Your task to perform on an android device: open sync settings in chrome Image 0: 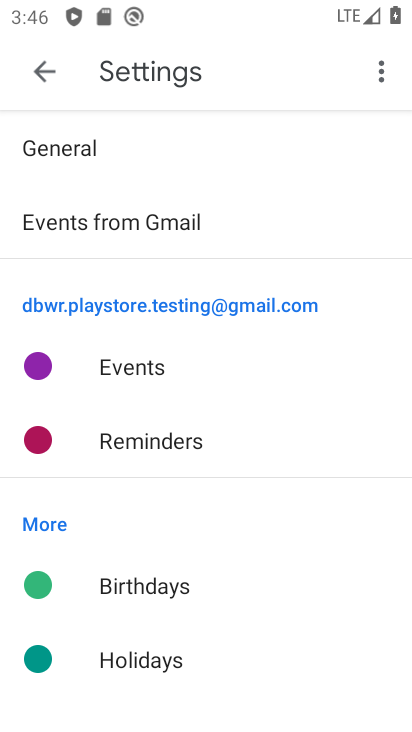
Step 0: press home button
Your task to perform on an android device: open sync settings in chrome Image 1: 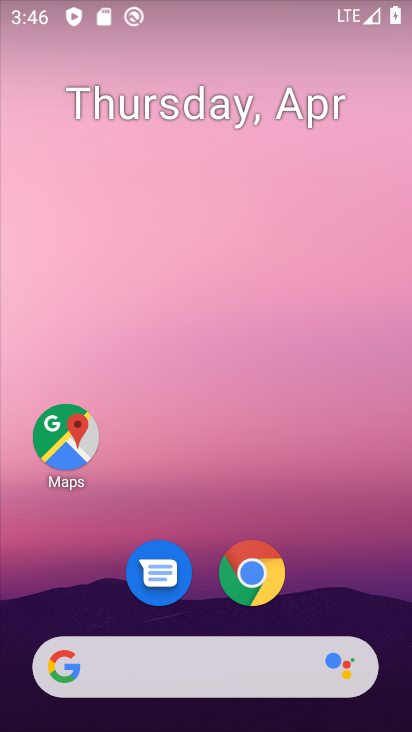
Step 1: drag from (337, 606) to (343, 113)
Your task to perform on an android device: open sync settings in chrome Image 2: 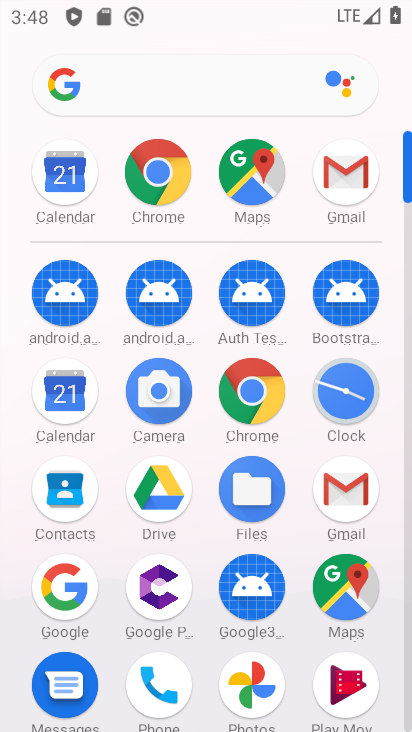
Step 2: click (256, 382)
Your task to perform on an android device: open sync settings in chrome Image 3: 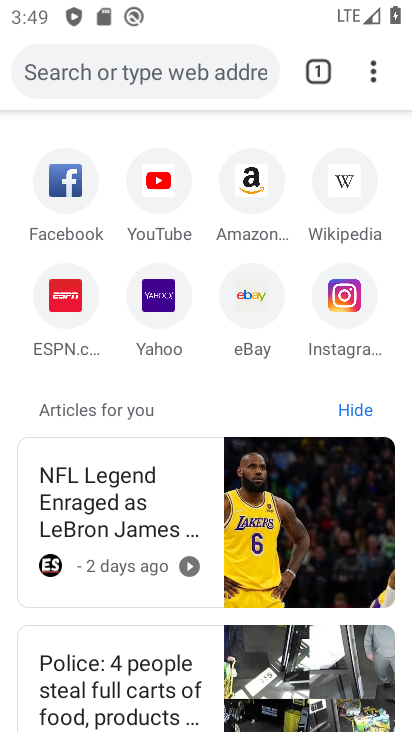
Step 3: click (370, 68)
Your task to perform on an android device: open sync settings in chrome Image 4: 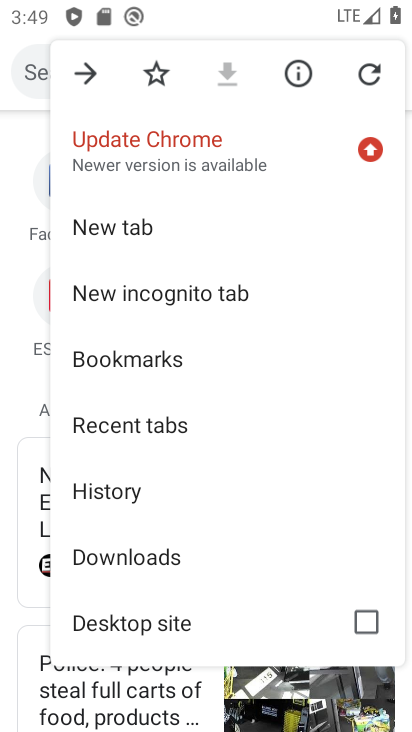
Step 4: drag from (174, 542) to (200, 177)
Your task to perform on an android device: open sync settings in chrome Image 5: 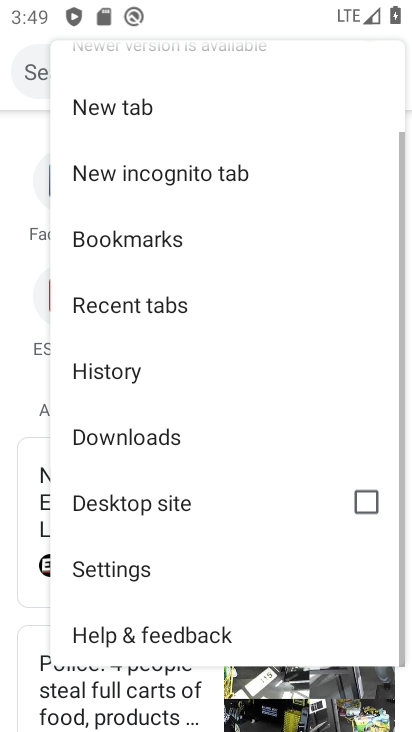
Step 5: click (128, 550)
Your task to perform on an android device: open sync settings in chrome Image 6: 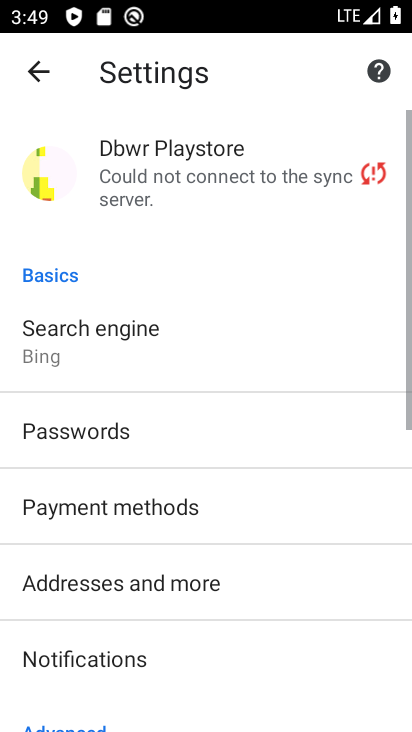
Step 6: drag from (155, 610) to (215, 99)
Your task to perform on an android device: open sync settings in chrome Image 7: 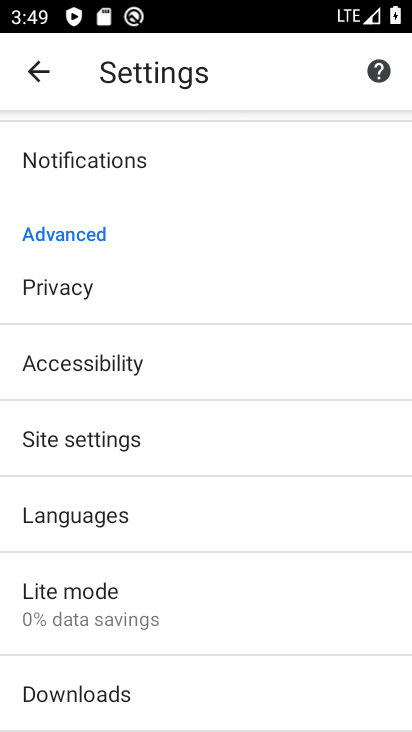
Step 7: click (147, 438)
Your task to perform on an android device: open sync settings in chrome Image 8: 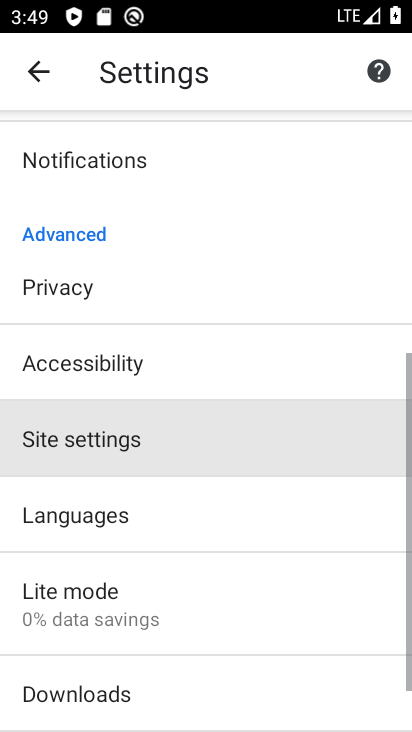
Step 8: drag from (131, 633) to (162, 79)
Your task to perform on an android device: open sync settings in chrome Image 9: 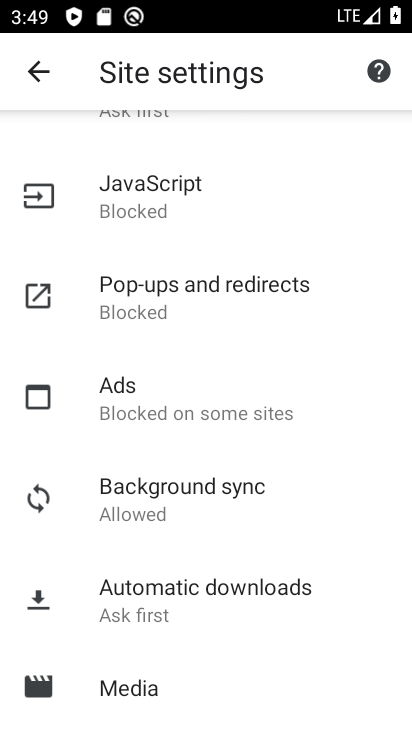
Step 9: click (182, 494)
Your task to perform on an android device: open sync settings in chrome Image 10: 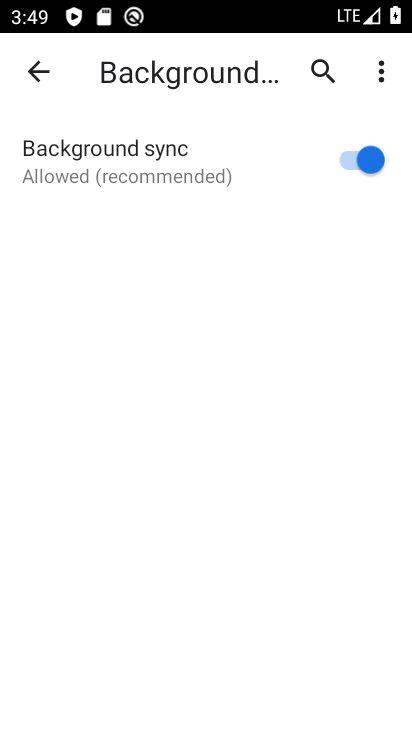
Step 10: task complete